Your task to perform on an android device: turn off smart reply in the gmail app Image 0: 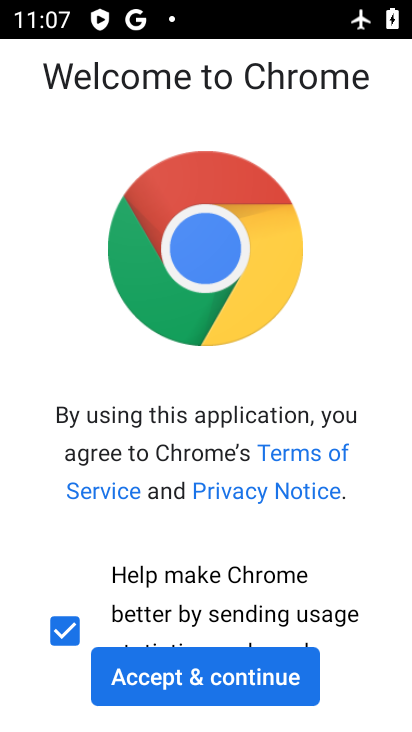
Step 0: press home button
Your task to perform on an android device: turn off smart reply in the gmail app Image 1: 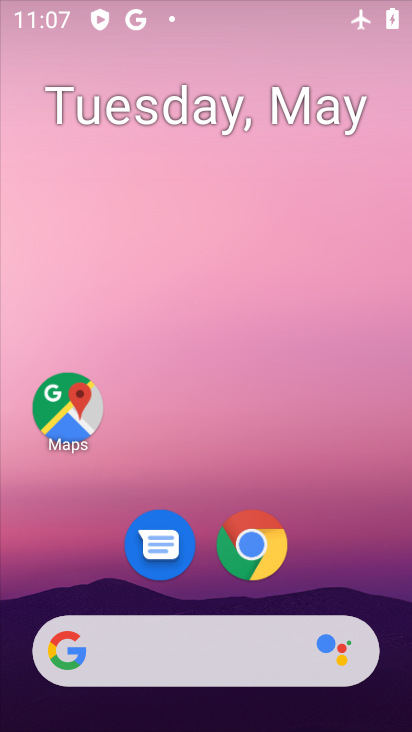
Step 1: drag from (282, 553) to (308, 247)
Your task to perform on an android device: turn off smart reply in the gmail app Image 2: 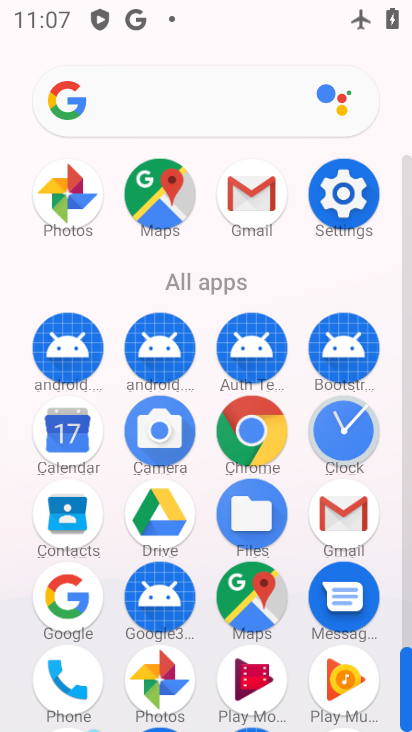
Step 2: click (335, 525)
Your task to perform on an android device: turn off smart reply in the gmail app Image 3: 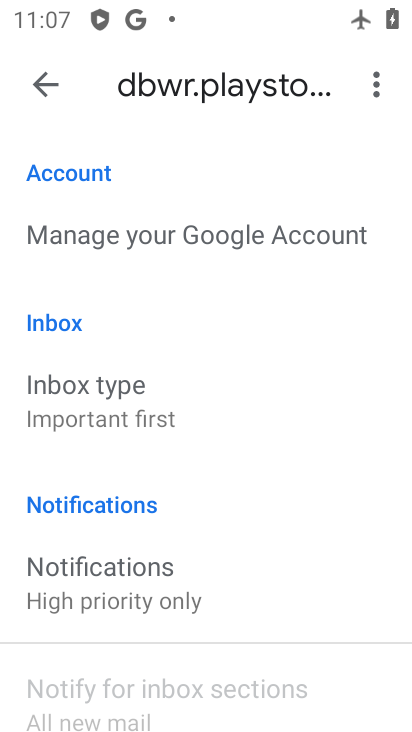
Step 3: drag from (235, 642) to (299, 374)
Your task to perform on an android device: turn off smart reply in the gmail app Image 4: 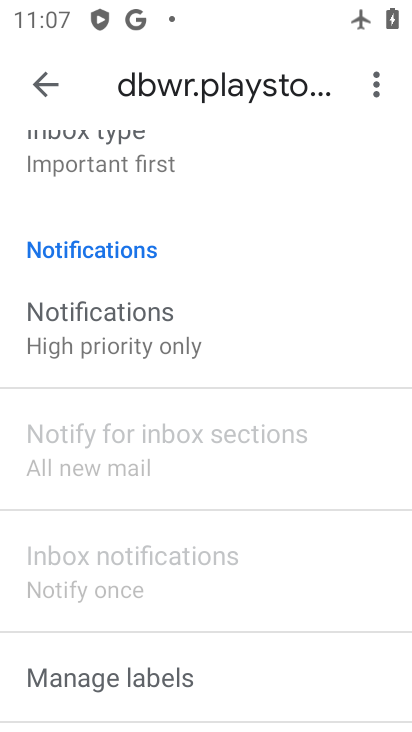
Step 4: drag from (302, 631) to (342, 305)
Your task to perform on an android device: turn off smart reply in the gmail app Image 5: 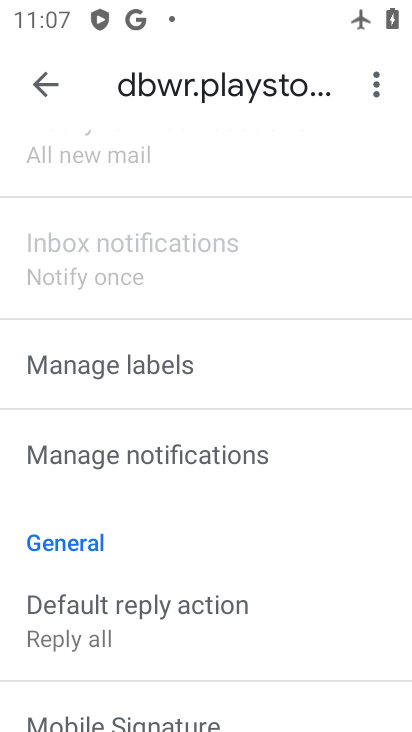
Step 5: drag from (300, 603) to (331, 297)
Your task to perform on an android device: turn off smart reply in the gmail app Image 6: 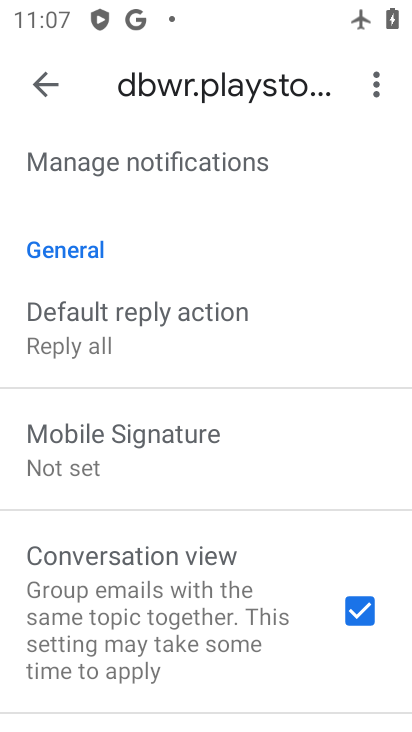
Step 6: drag from (281, 680) to (311, 424)
Your task to perform on an android device: turn off smart reply in the gmail app Image 7: 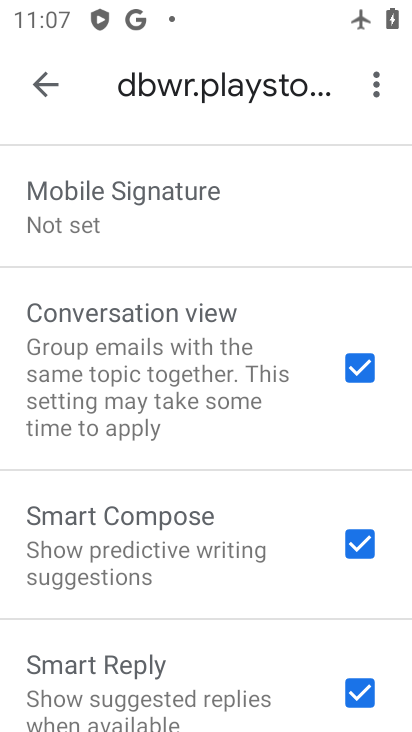
Step 7: drag from (257, 662) to (276, 467)
Your task to perform on an android device: turn off smart reply in the gmail app Image 8: 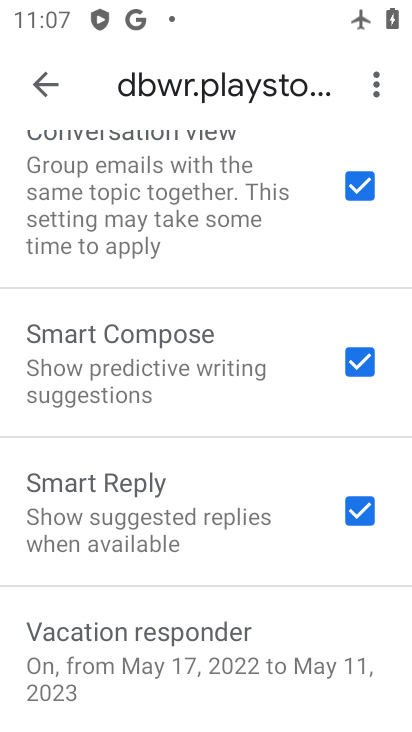
Step 8: click (362, 507)
Your task to perform on an android device: turn off smart reply in the gmail app Image 9: 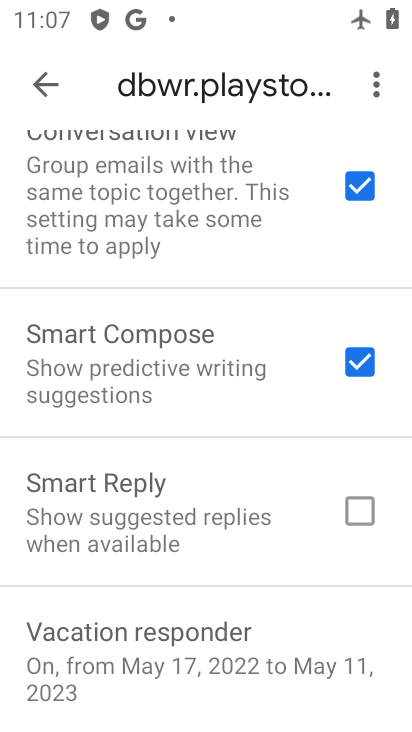
Step 9: task complete